Your task to perform on an android device: turn on notifications settings in the gmail app Image 0: 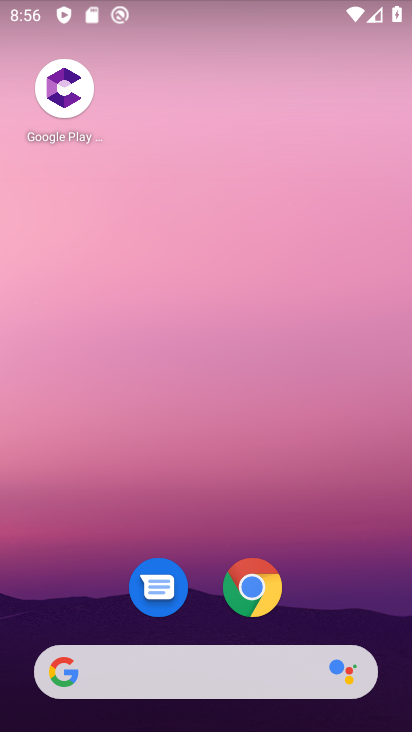
Step 0: drag from (74, 637) to (183, 129)
Your task to perform on an android device: turn on notifications settings in the gmail app Image 1: 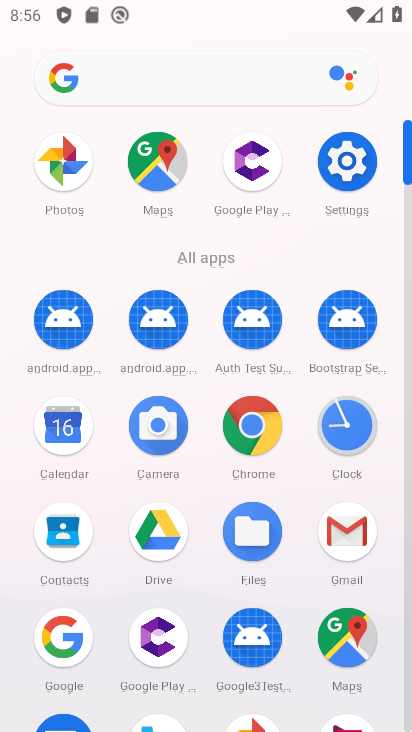
Step 1: click (355, 547)
Your task to perform on an android device: turn on notifications settings in the gmail app Image 2: 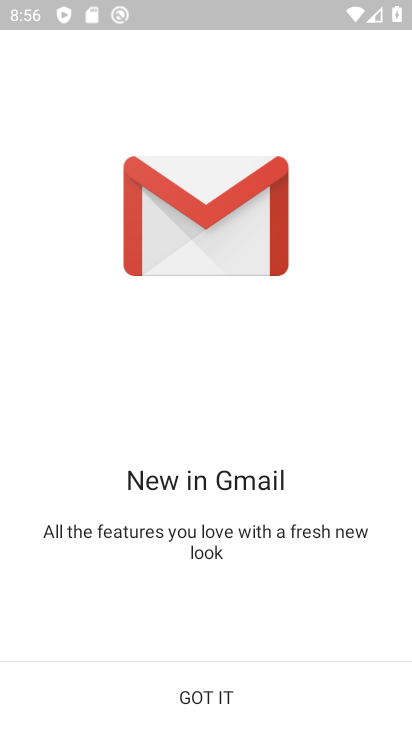
Step 2: click (337, 540)
Your task to perform on an android device: turn on notifications settings in the gmail app Image 3: 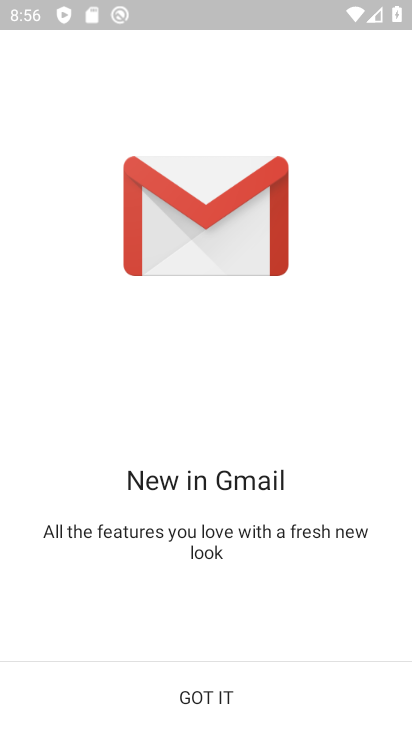
Step 3: click (238, 697)
Your task to perform on an android device: turn on notifications settings in the gmail app Image 4: 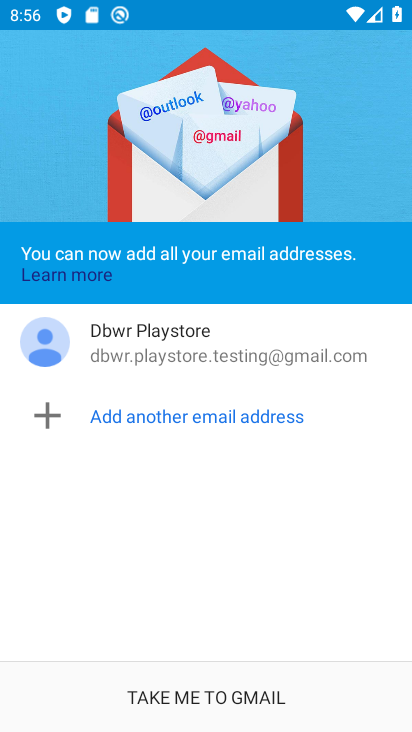
Step 4: click (239, 696)
Your task to perform on an android device: turn on notifications settings in the gmail app Image 5: 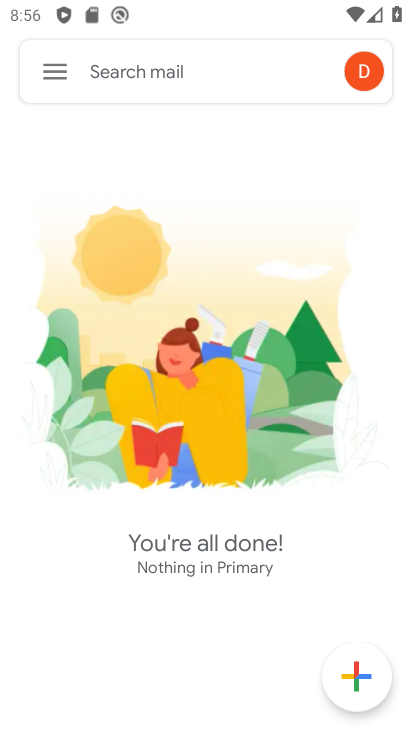
Step 5: click (43, 76)
Your task to perform on an android device: turn on notifications settings in the gmail app Image 6: 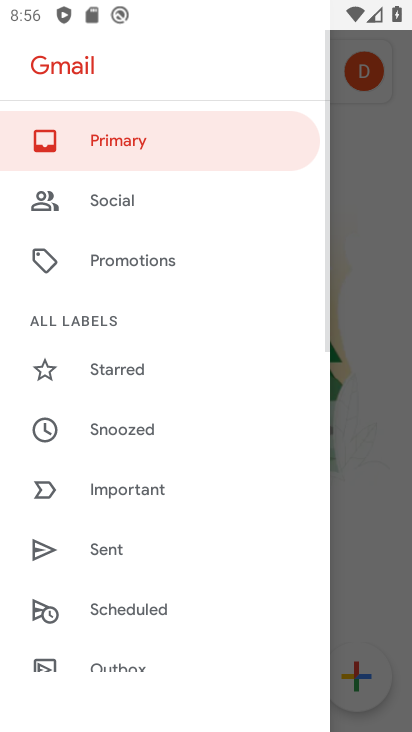
Step 6: drag from (160, 605) to (251, 141)
Your task to perform on an android device: turn on notifications settings in the gmail app Image 7: 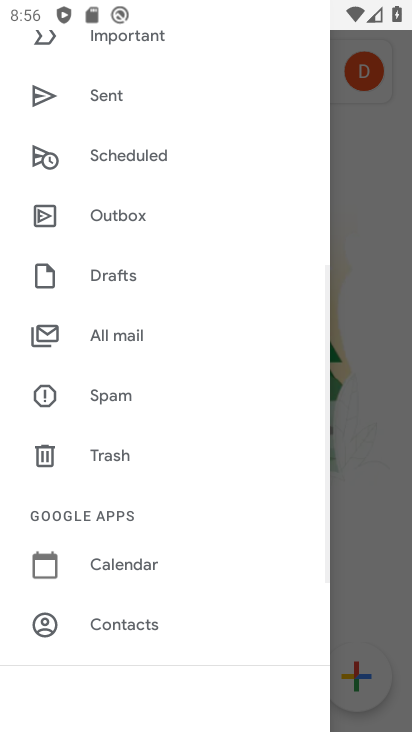
Step 7: drag from (141, 629) to (198, 255)
Your task to perform on an android device: turn on notifications settings in the gmail app Image 8: 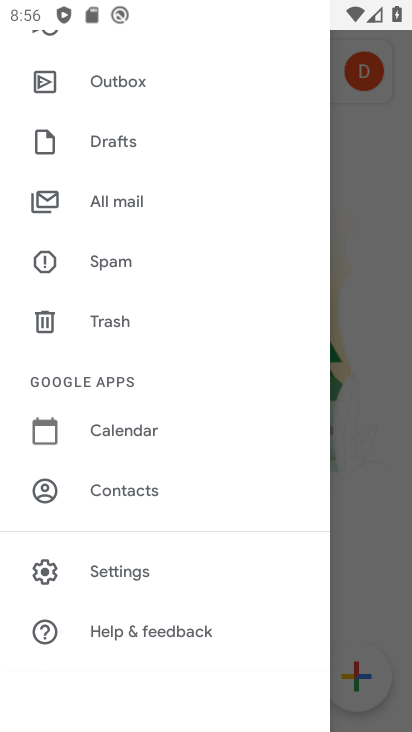
Step 8: click (126, 597)
Your task to perform on an android device: turn on notifications settings in the gmail app Image 9: 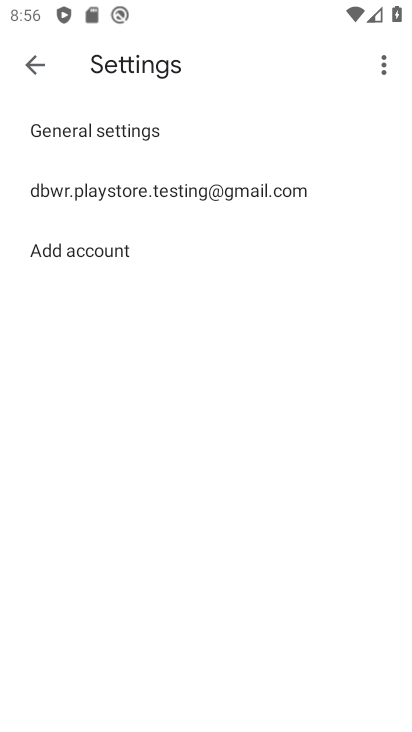
Step 9: click (207, 201)
Your task to perform on an android device: turn on notifications settings in the gmail app Image 10: 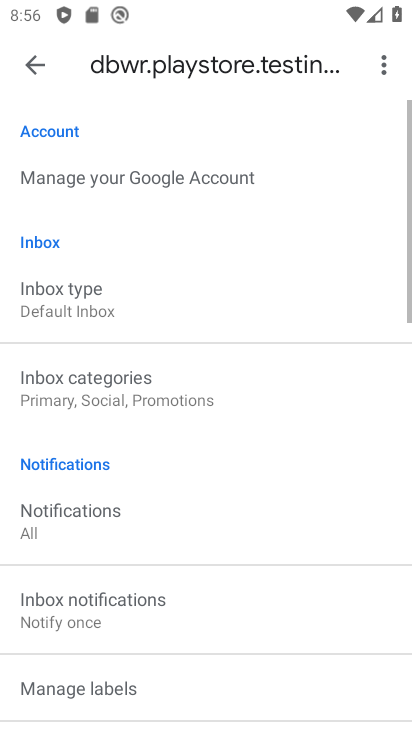
Step 10: drag from (169, 577) to (236, 250)
Your task to perform on an android device: turn on notifications settings in the gmail app Image 11: 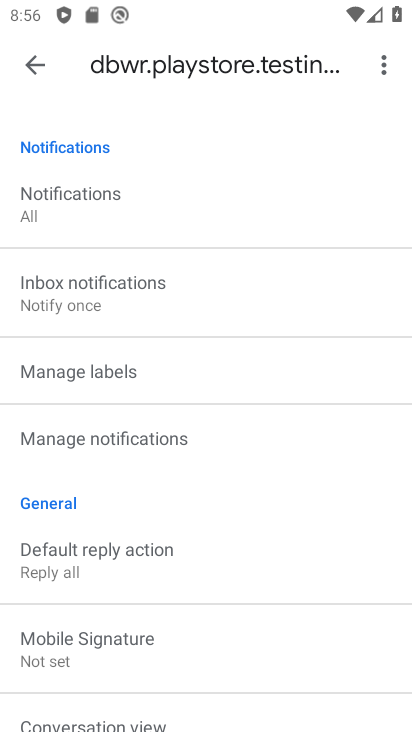
Step 11: click (208, 443)
Your task to perform on an android device: turn on notifications settings in the gmail app Image 12: 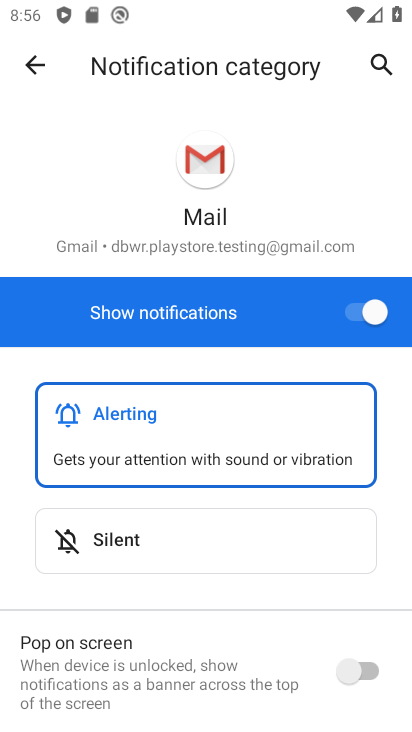
Step 12: task complete